Your task to perform on an android device: Search for the best rated drill on Lowes.com Image 0: 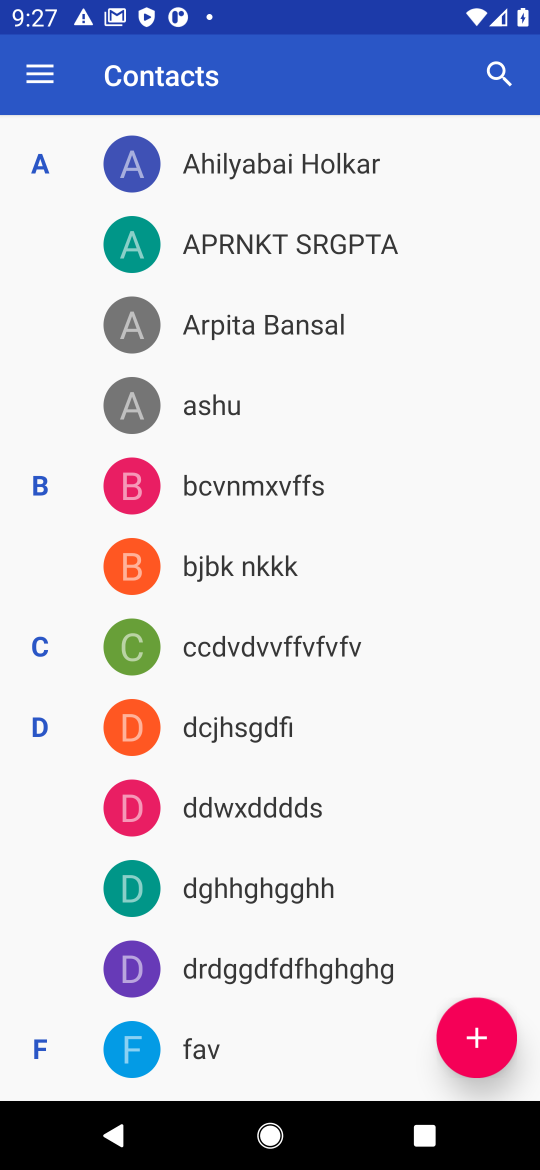
Step 0: press home button
Your task to perform on an android device: Search for the best rated drill on Lowes.com Image 1: 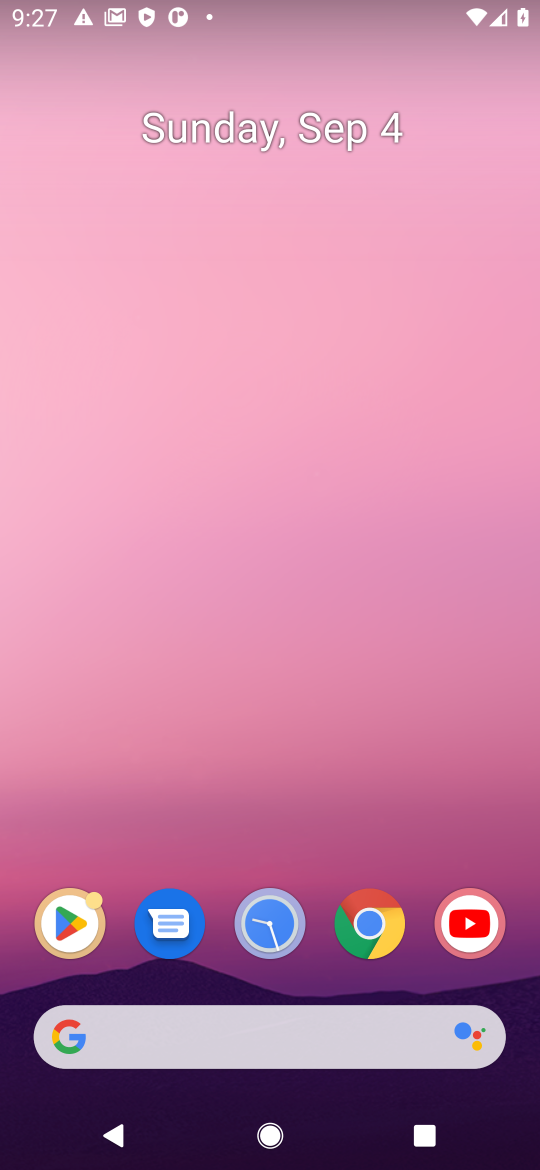
Step 1: click (404, 1034)
Your task to perform on an android device: Search for the best rated drill on Lowes.com Image 2: 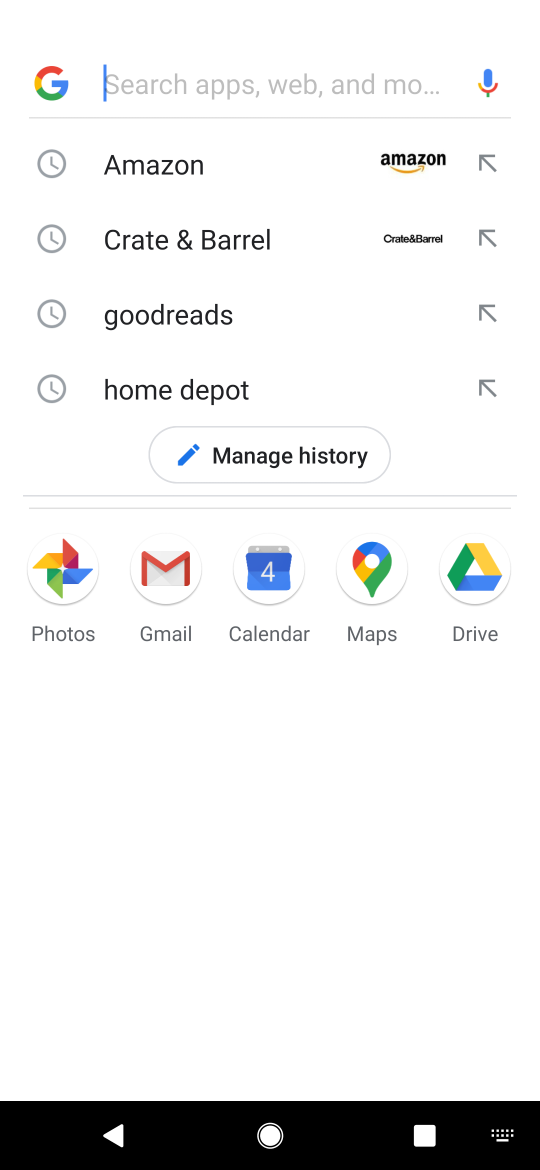
Step 2: press enter
Your task to perform on an android device: Search for the best rated drill on Lowes.com Image 3: 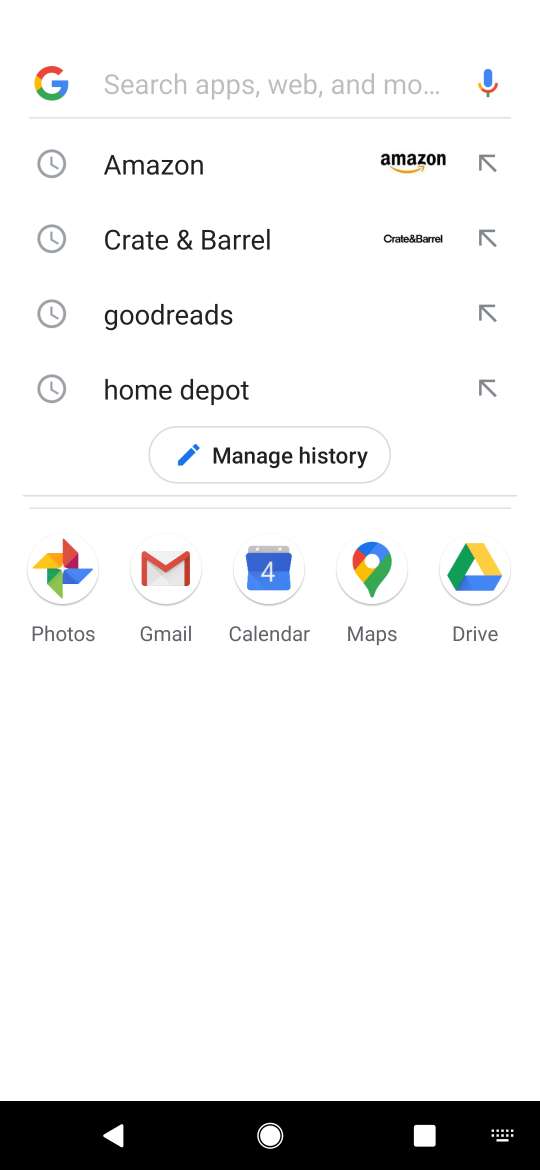
Step 3: type "lowes.com"
Your task to perform on an android device: Search for the best rated drill on Lowes.com Image 4: 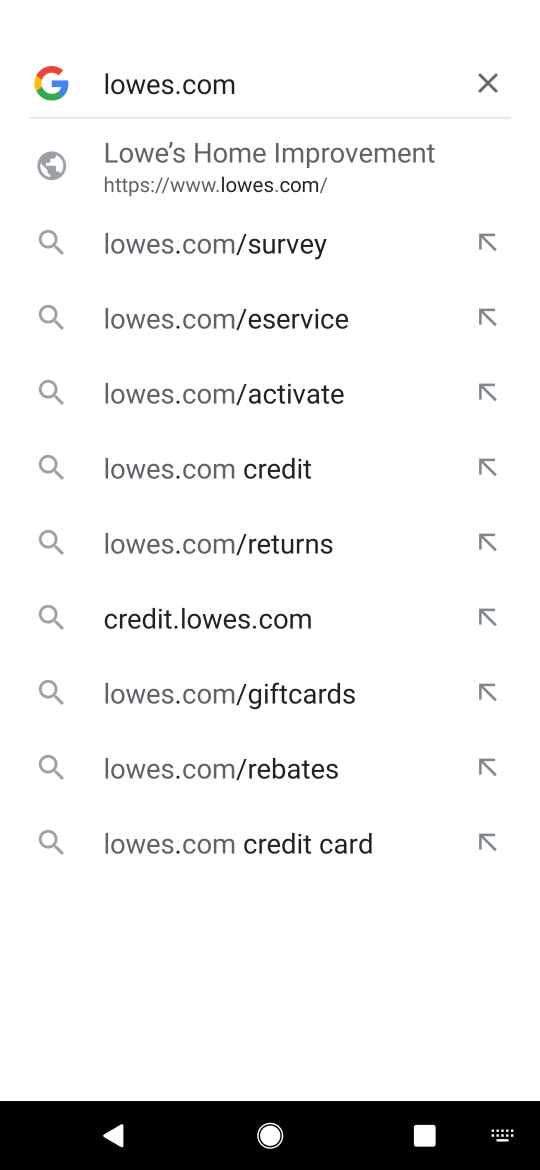
Step 4: click (203, 184)
Your task to perform on an android device: Search for the best rated drill on Lowes.com Image 5: 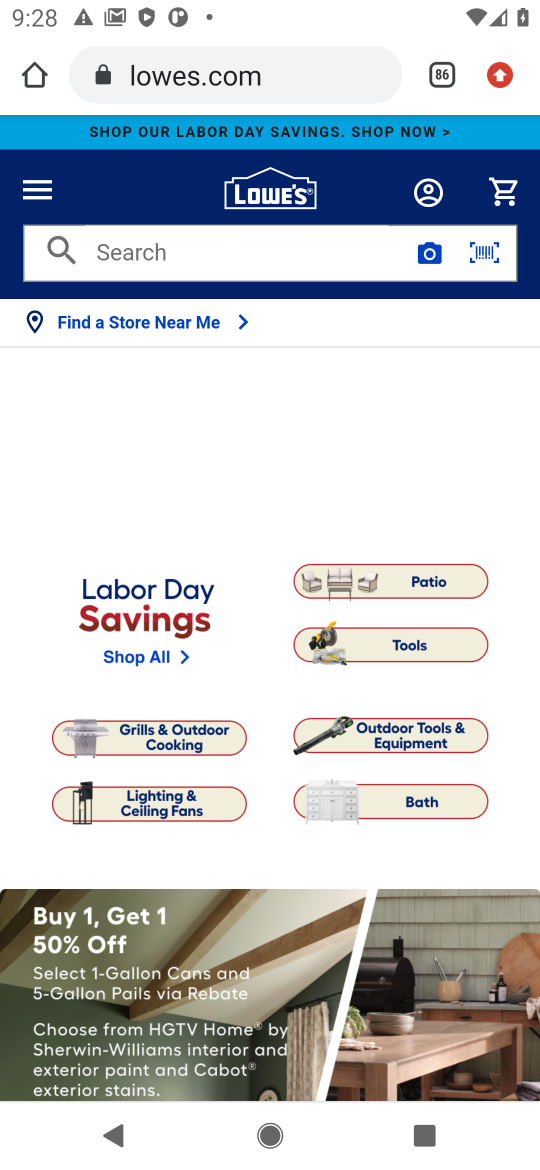
Step 5: click (214, 259)
Your task to perform on an android device: Search for the best rated drill on Lowes.com Image 6: 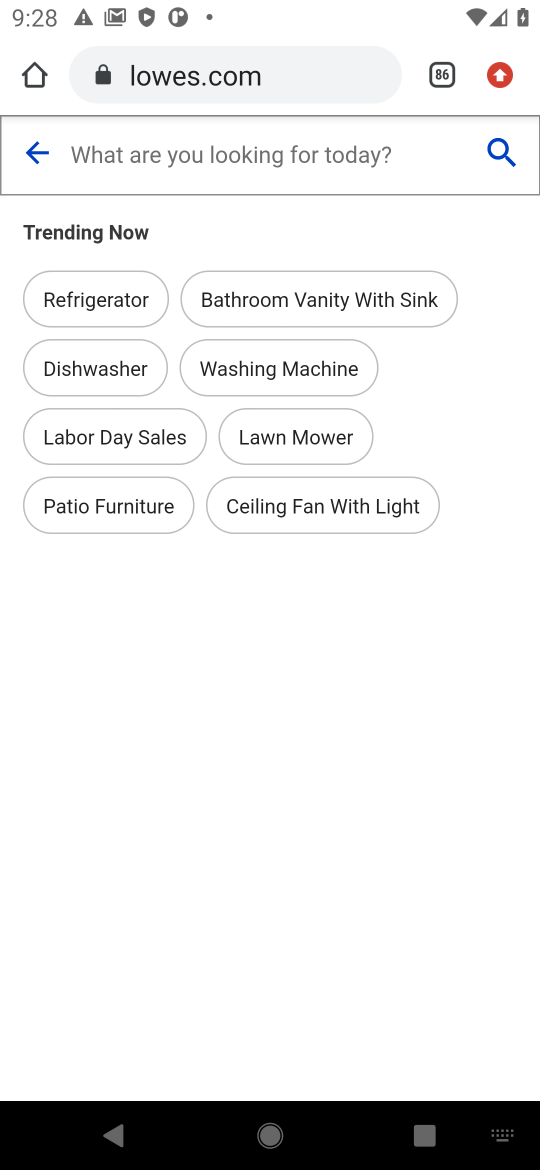
Step 6: press enter
Your task to perform on an android device: Search for the best rated drill on Lowes.com Image 7: 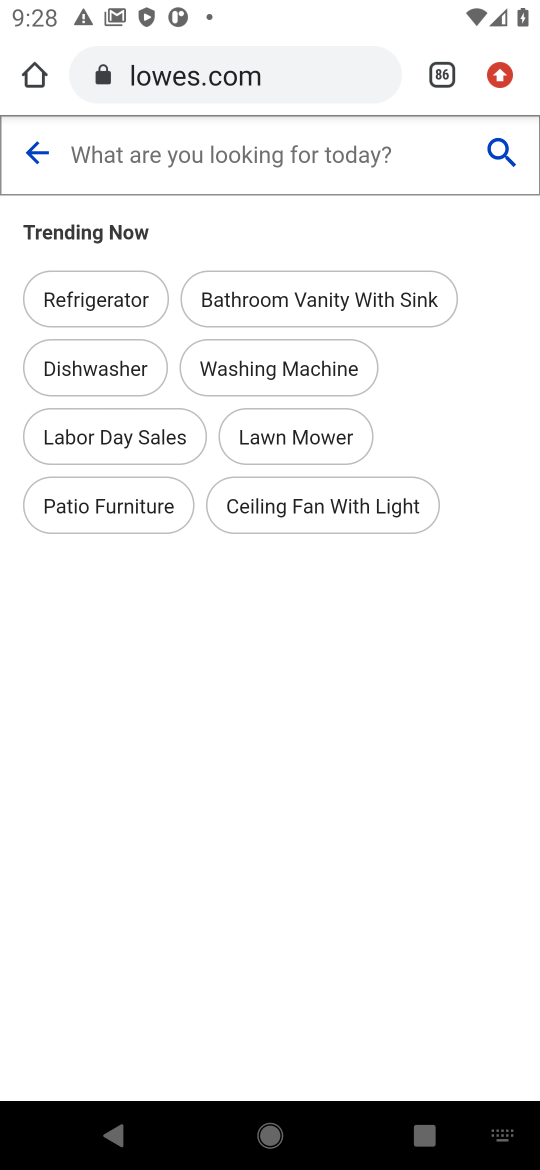
Step 7: type "best rated drill"
Your task to perform on an android device: Search for the best rated drill on Lowes.com Image 8: 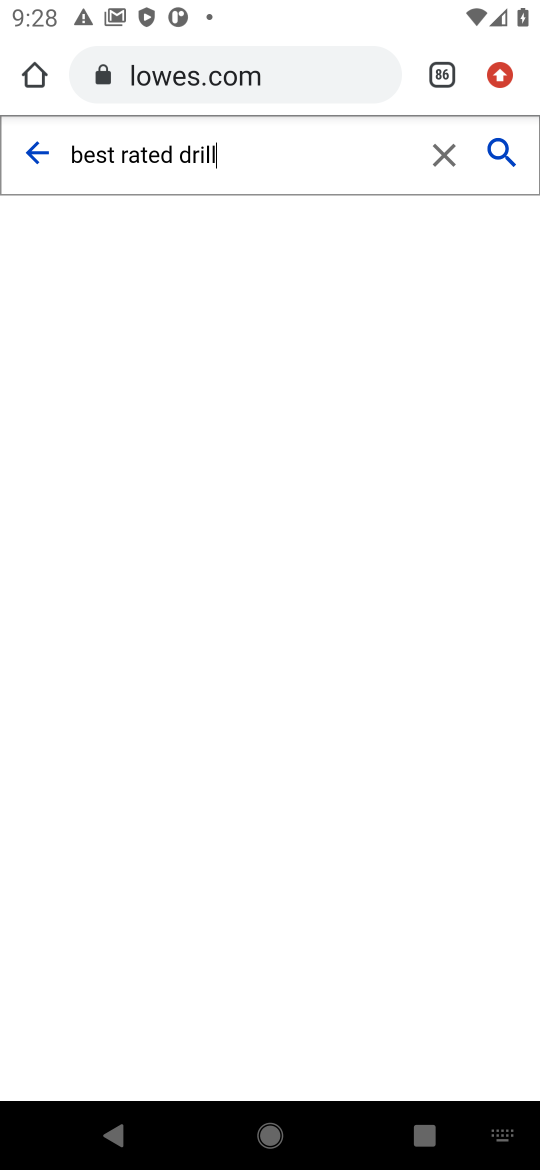
Step 8: click (505, 158)
Your task to perform on an android device: Search for the best rated drill on Lowes.com Image 9: 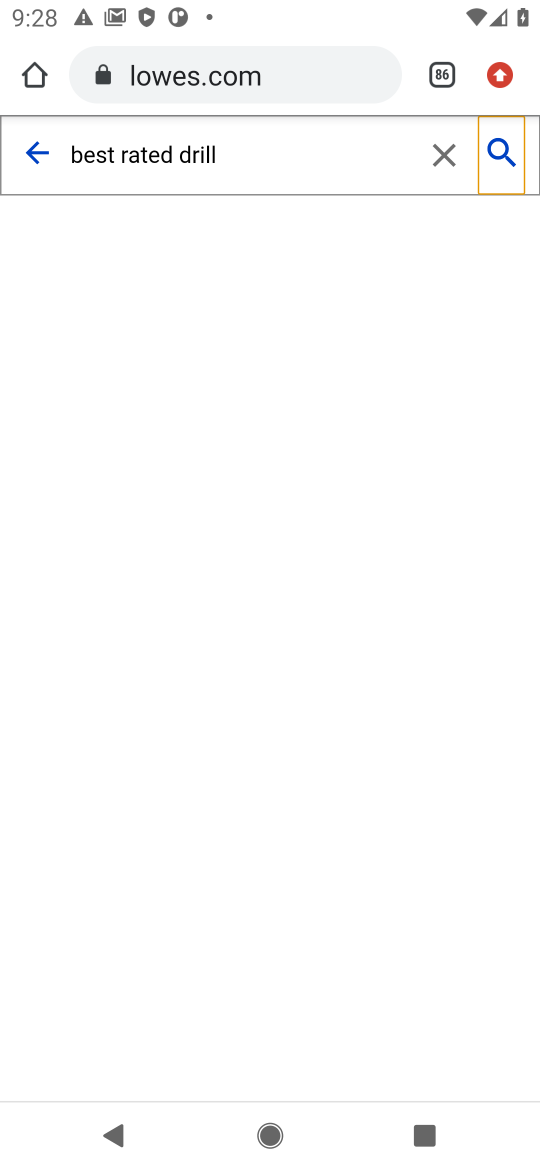
Step 9: click (492, 137)
Your task to perform on an android device: Search for the best rated drill on Lowes.com Image 10: 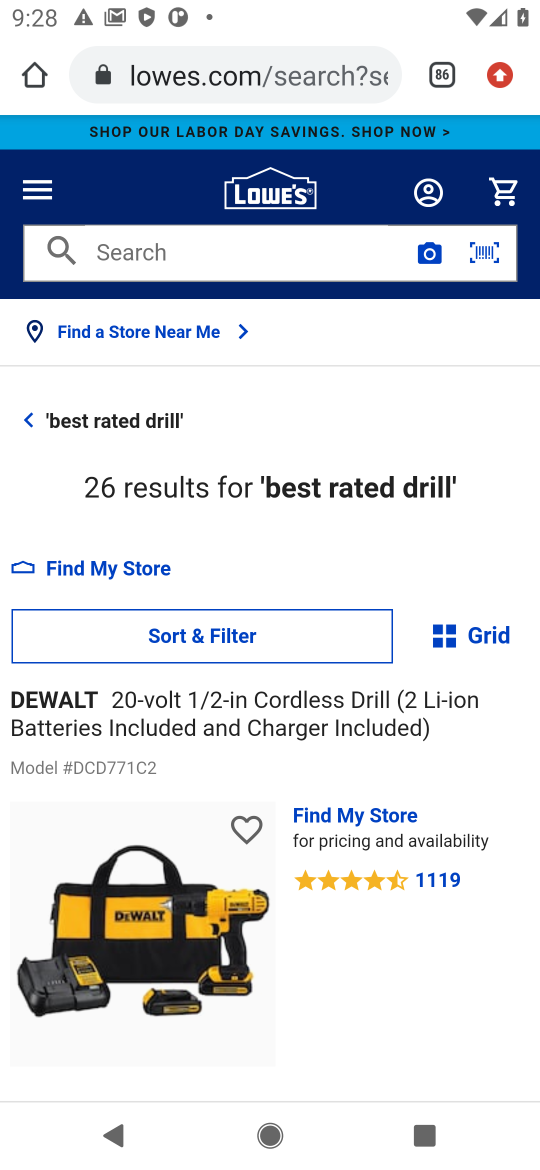
Step 10: task complete